Your task to perform on an android device: delete browsing data in the chrome app Image 0: 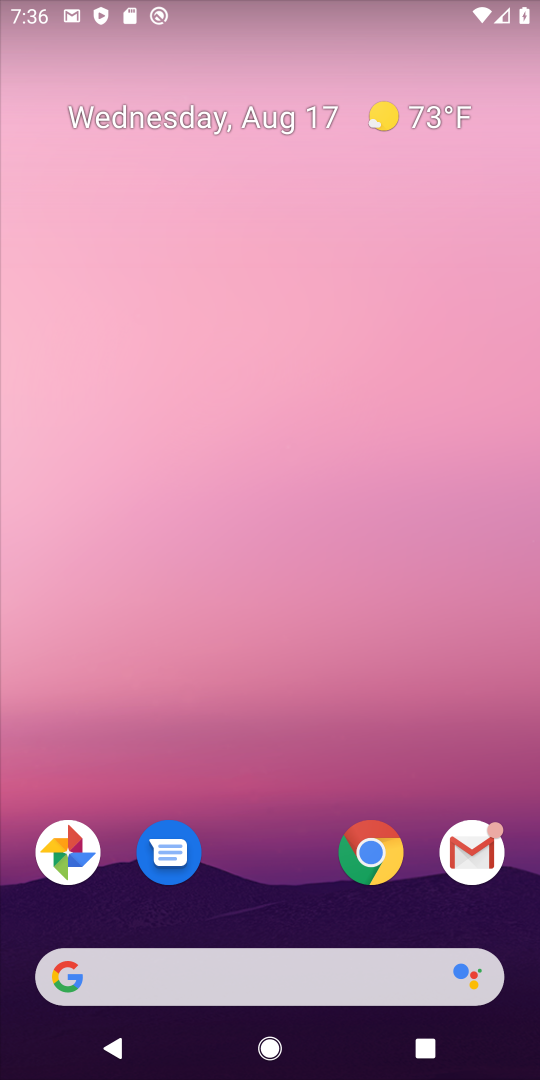
Step 0: click (372, 857)
Your task to perform on an android device: delete browsing data in the chrome app Image 1: 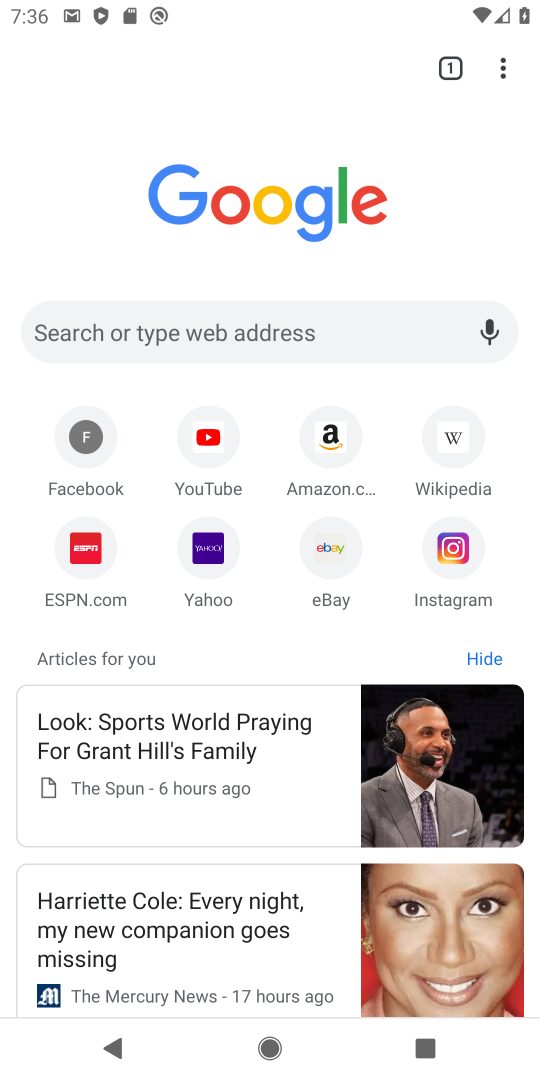
Step 1: click (498, 72)
Your task to perform on an android device: delete browsing data in the chrome app Image 2: 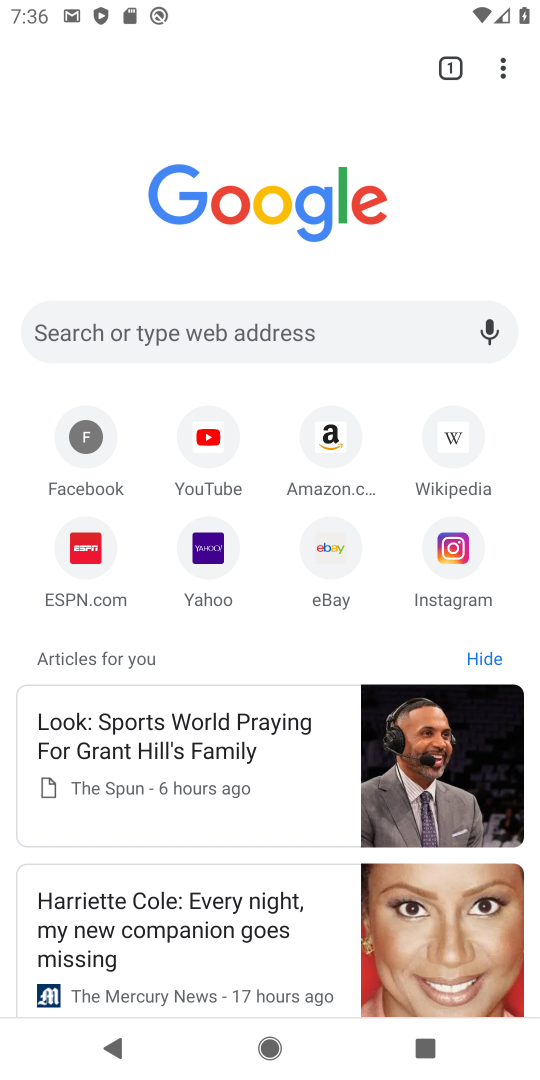
Step 2: click (505, 66)
Your task to perform on an android device: delete browsing data in the chrome app Image 3: 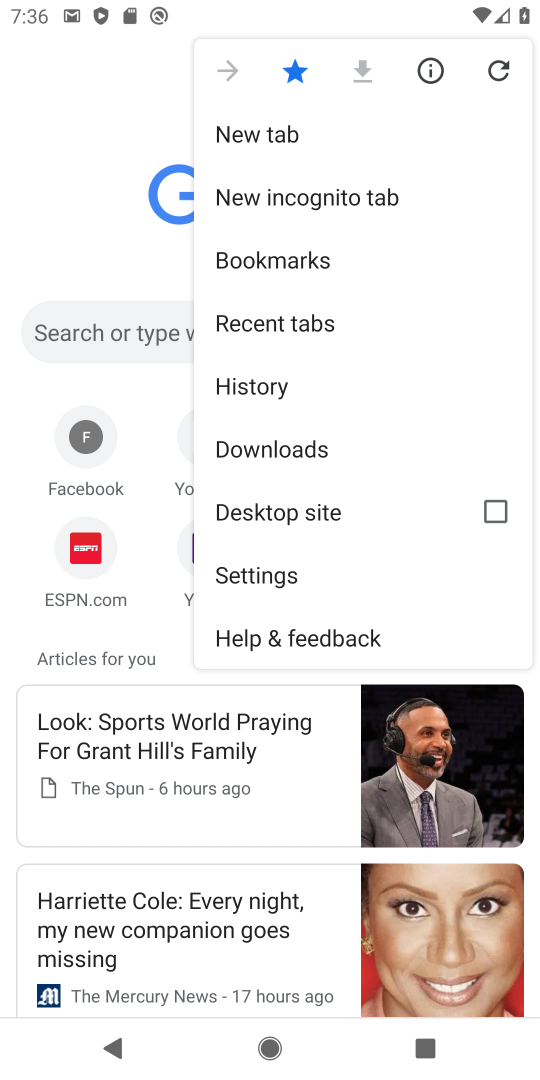
Step 3: click (269, 383)
Your task to perform on an android device: delete browsing data in the chrome app Image 4: 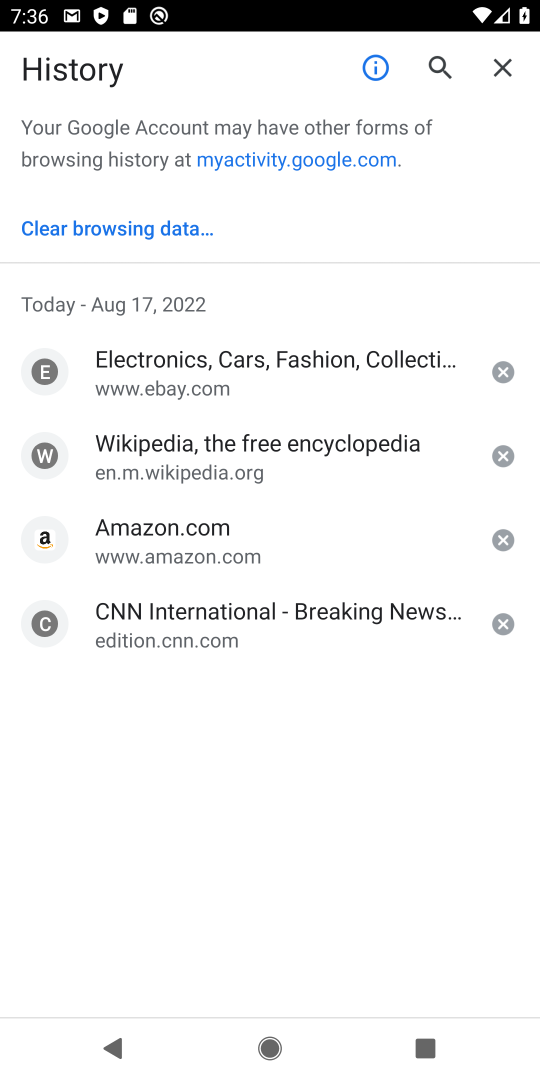
Step 4: click (118, 220)
Your task to perform on an android device: delete browsing data in the chrome app Image 5: 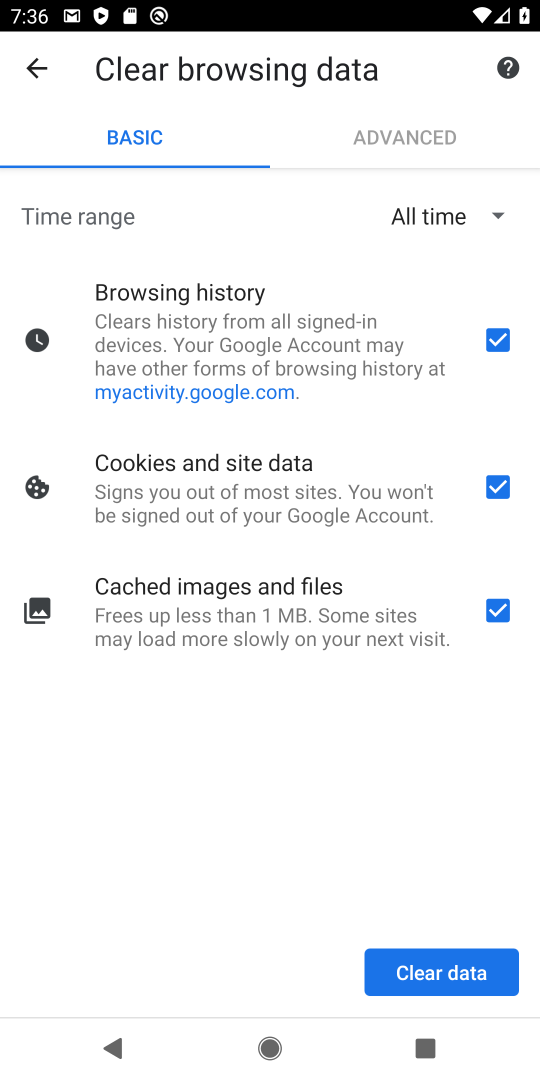
Step 5: click (439, 970)
Your task to perform on an android device: delete browsing data in the chrome app Image 6: 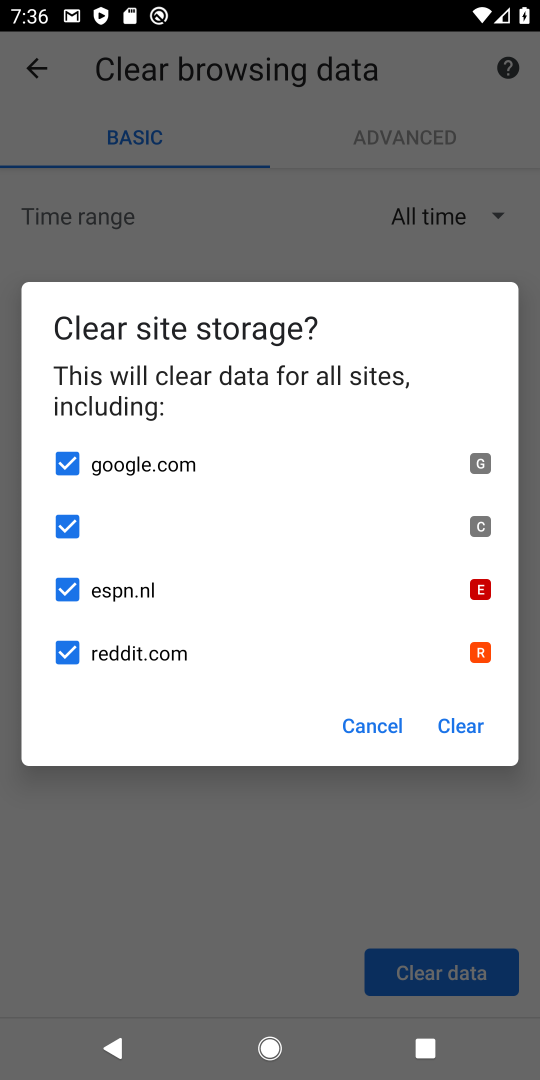
Step 6: click (456, 724)
Your task to perform on an android device: delete browsing data in the chrome app Image 7: 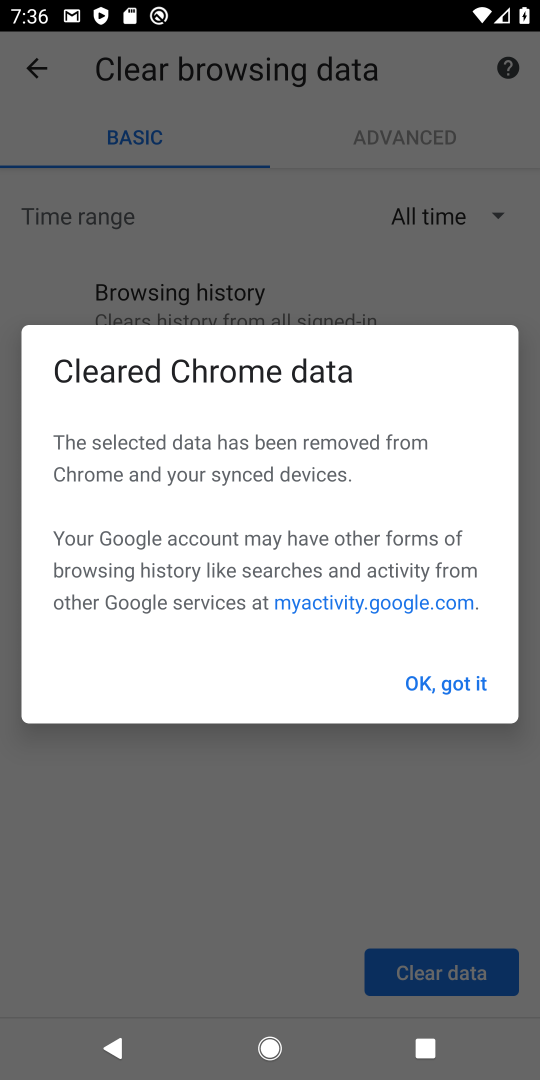
Step 7: click (441, 677)
Your task to perform on an android device: delete browsing data in the chrome app Image 8: 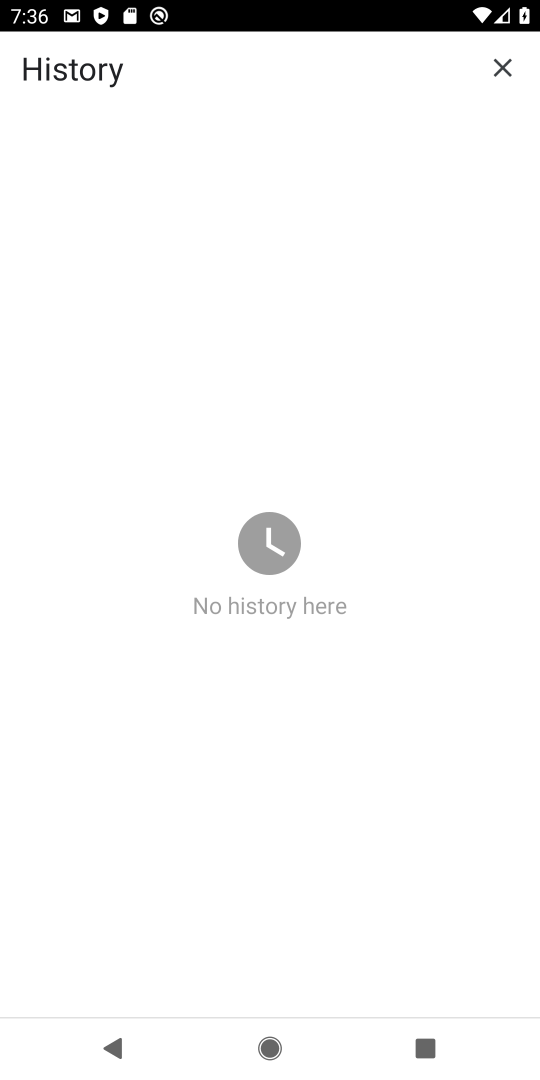
Step 8: task complete